Your task to perform on an android device: What's the weather? Image 0: 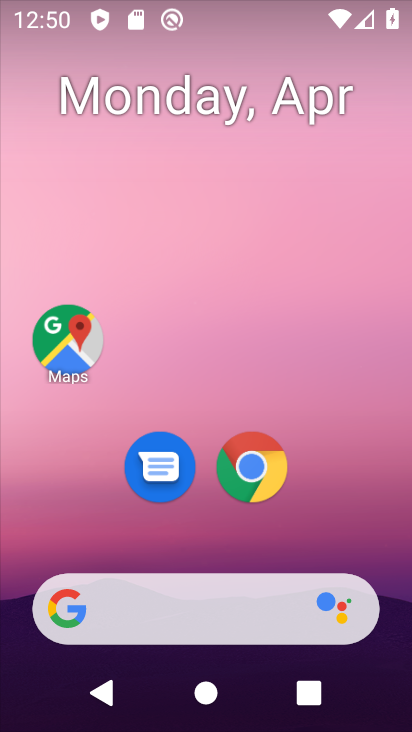
Step 0: drag from (242, 506) to (179, 65)
Your task to perform on an android device: What's the weather? Image 1: 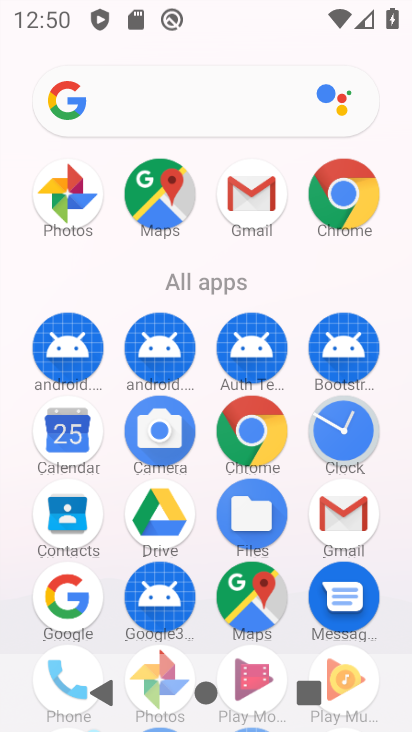
Step 1: click (73, 594)
Your task to perform on an android device: What's the weather? Image 2: 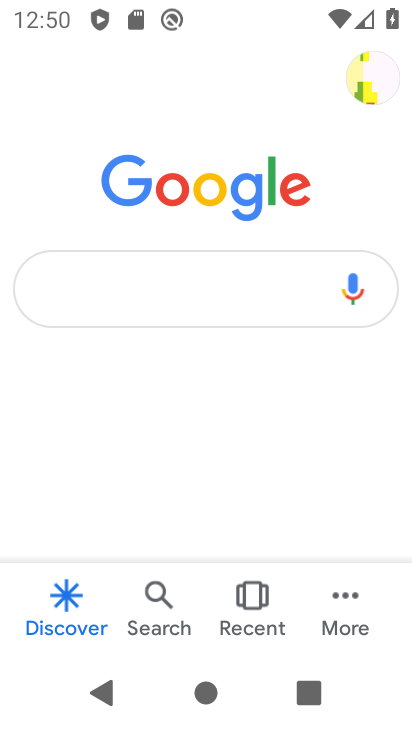
Step 2: click (172, 286)
Your task to perform on an android device: What's the weather? Image 3: 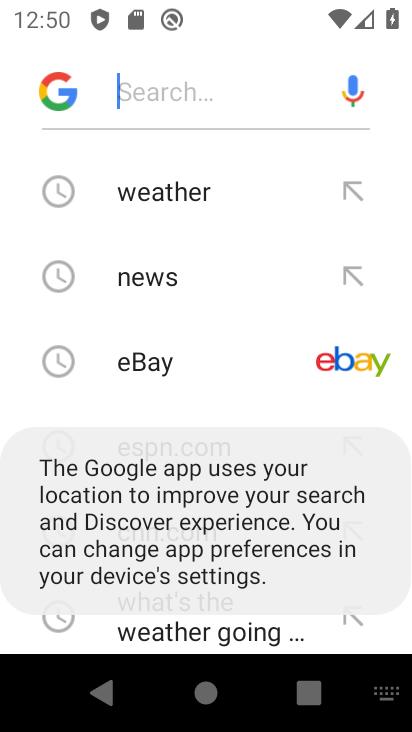
Step 3: click (149, 193)
Your task to perform on an android device: What's the weather? Image 4: 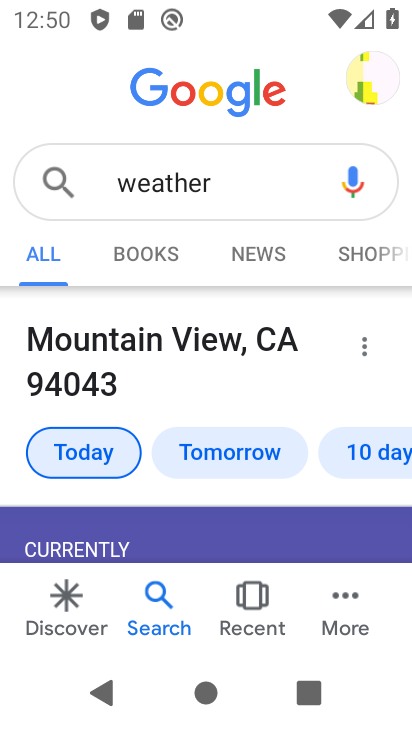
Step 4: task complete